Your task to perform on an android device: Show me popular videos on Youtube Image 0: 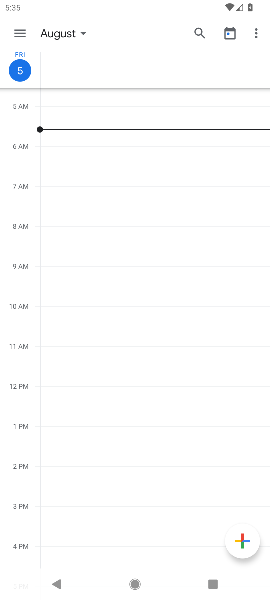
Step 0: press home button
Your task to perform on an android device: Show me popular videos on Youtube Image 1: 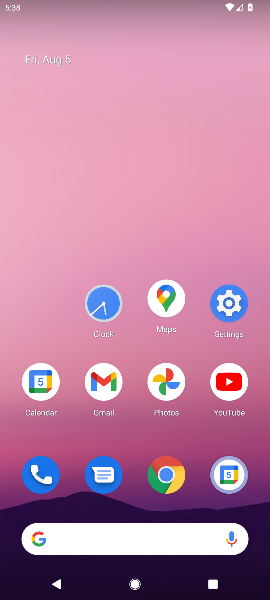
Step 1: click (237, 386)
Your task to perform on an android device: Show me popular videos on Youtube Image 2: 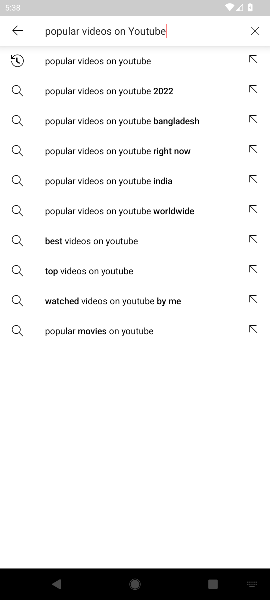
Step 2: click (136, 64)
Your task to perform on an android device: Show me popular videos on Youtube Image 3: 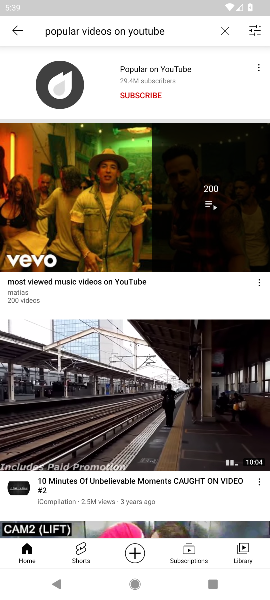
Step 3: task complete